Your task to perform on an android device: set the timer Image 0: 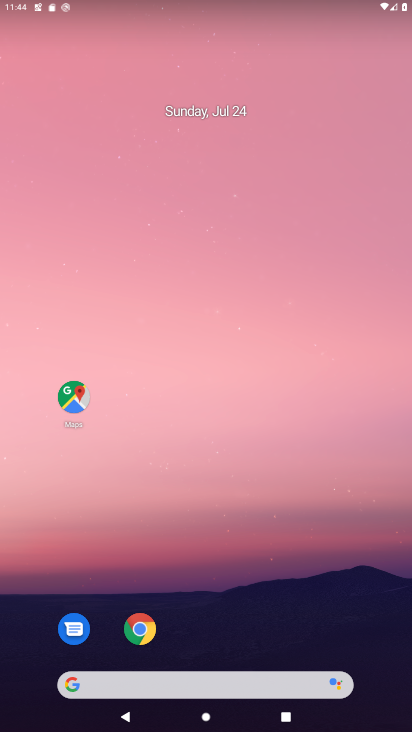
Step 0: drag from (224, 595) to (275, 1)
Your task to perform on an android device: set the timer Image 1: 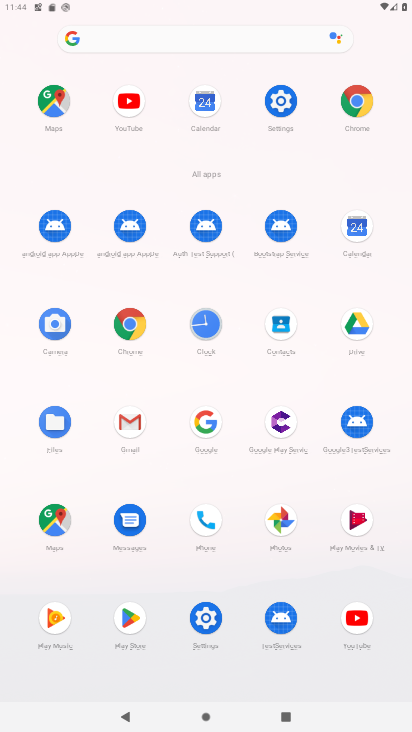
Step 1: click (208, 335)
Your task to perform on an android device: set the timer Image 2: 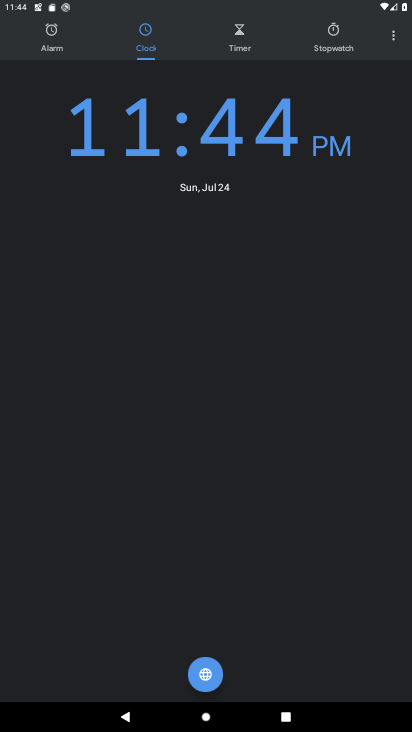
Step 2: click (243, 48)
Your task to perform on an android device: set the timer Image 3: 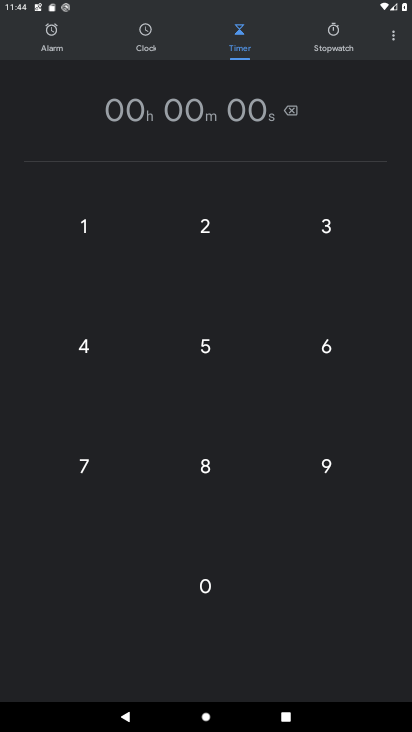
Step 3: click (86, 447)
Your task to perform on an android device: set the timer Image 4: 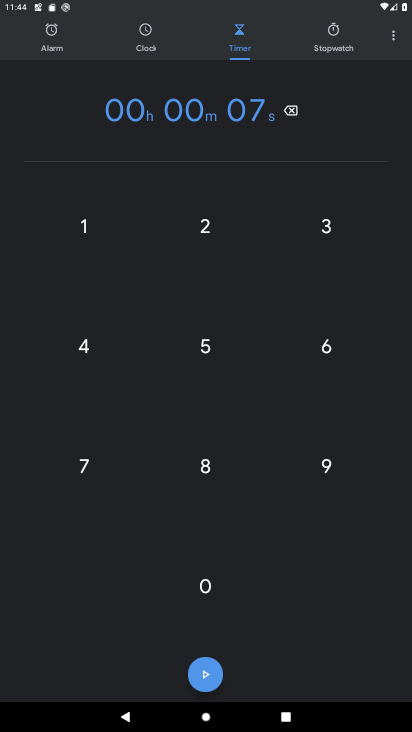
Step 4: click (211, 333)
Your task to perform on an android device: set the timer Image 5: 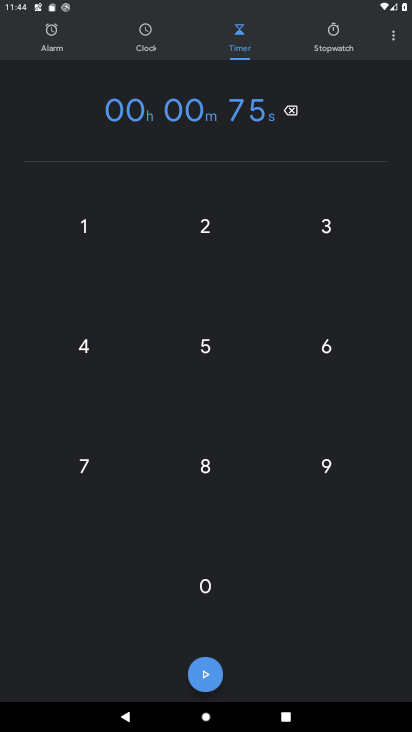
Step 5: click (110, 349)
Your task to perform on an android device: set the timer Image 6: 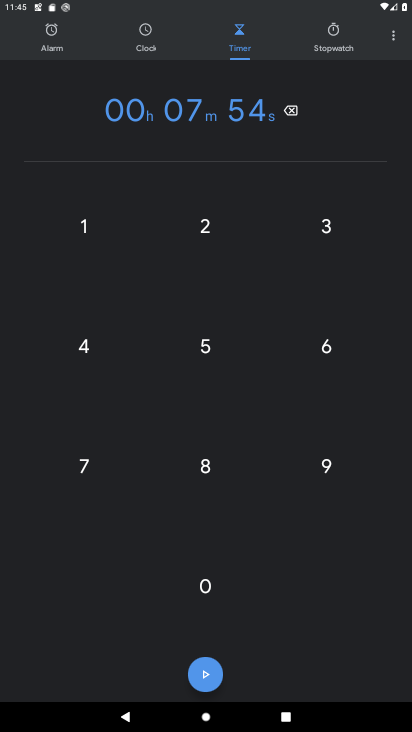
Step 6: click (198, 677)
Your task to perform on an android device: set the timer Image 7: 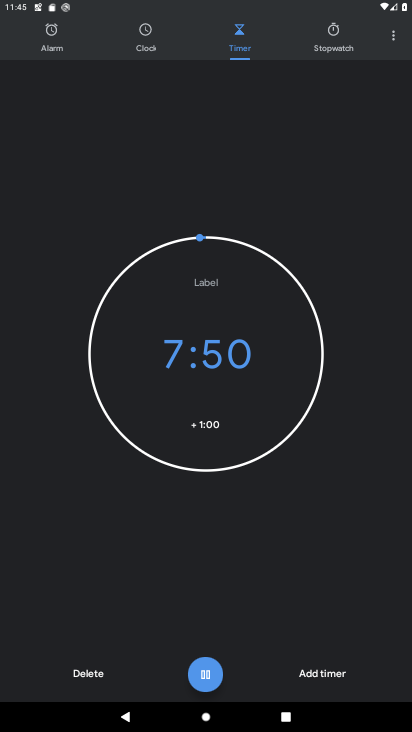
Step 7: task complete